Your task to perform on an android device: turn off notifications settings in the gmail app Image 0: 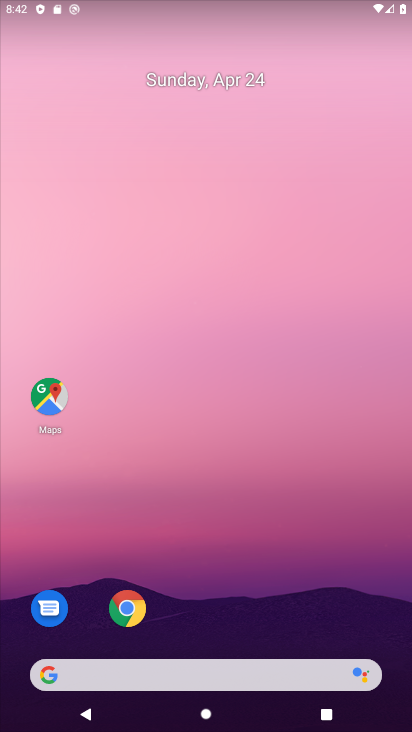
Step 0: drag from (196, 531) to (183, 170)
Your task to perform on an android device: turn off notifications settings in the gmail app Image 1: 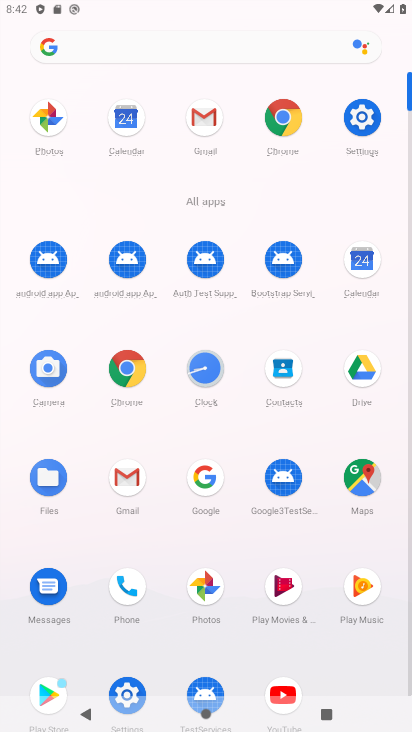
Step 1: click (141, 477)
Your task to perform on an android device: turn off notifications settings in the gmail app Image 2: 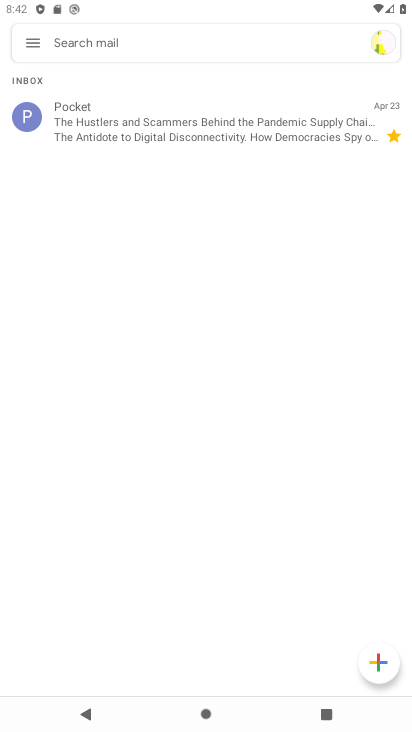
Step 2: click (35, 43)
Your task to perform on an android device: turn off notifications settings in the gmail app Image 3: 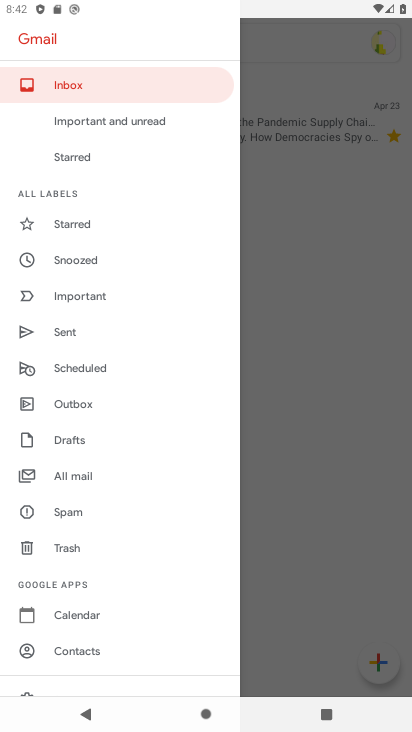
Step 3: drag from (115, 614) to (134, 350)
Your task to perform on an android device: turn off notifications settings in the gmail app Image 4: 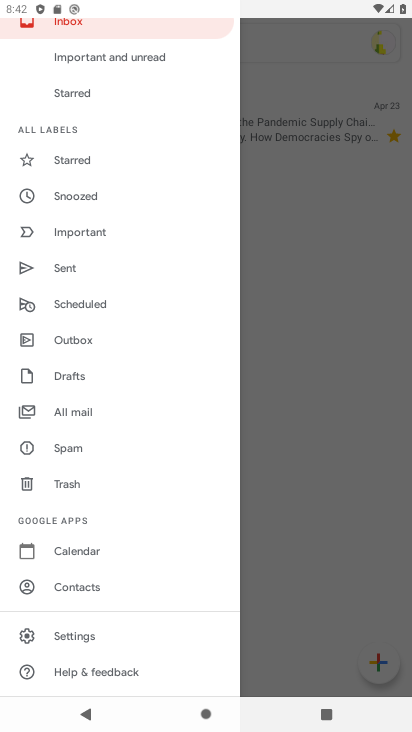
Step 4: click (105, 629)
Your task to perform on an android device: turn off notifications settings in the gmail app Image 5: 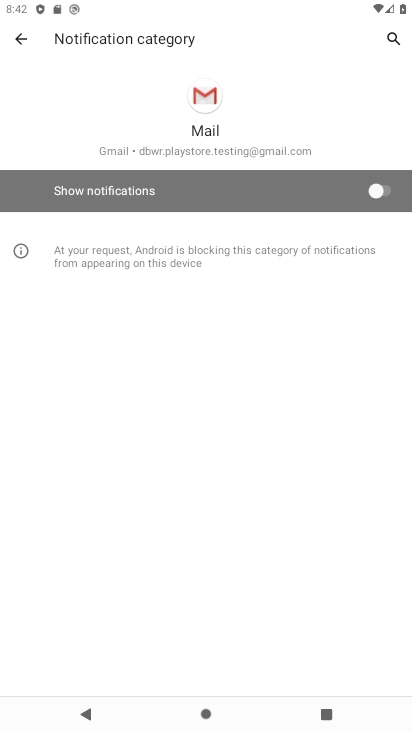
Step 5: task complete